Your task to perform on an android device: check the backup settings in the google photos Image 0: 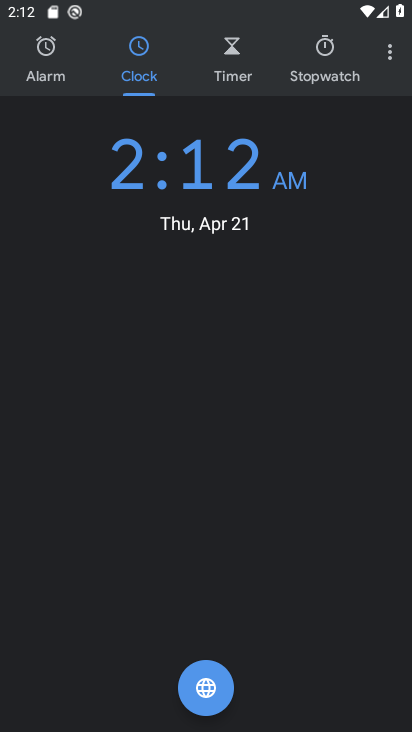
Step 0: press back button
Your task to perform on an android device: check the backup settings in the google photos Image 1: 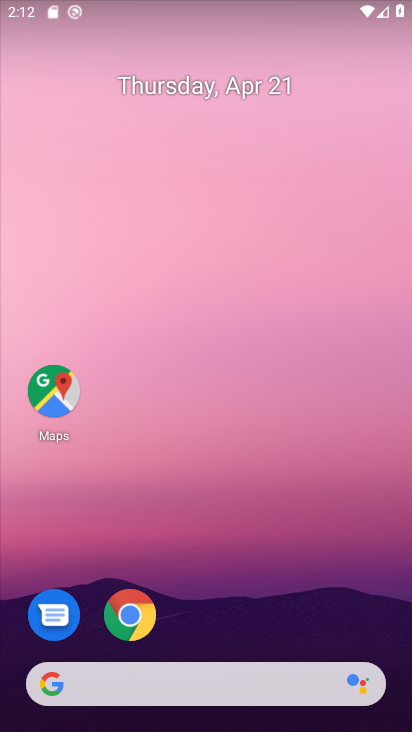
Step 1: drag from (177, 655) to (288, 105)
Your task to perform on an android device: check the backup settings in the google photos Image 2: 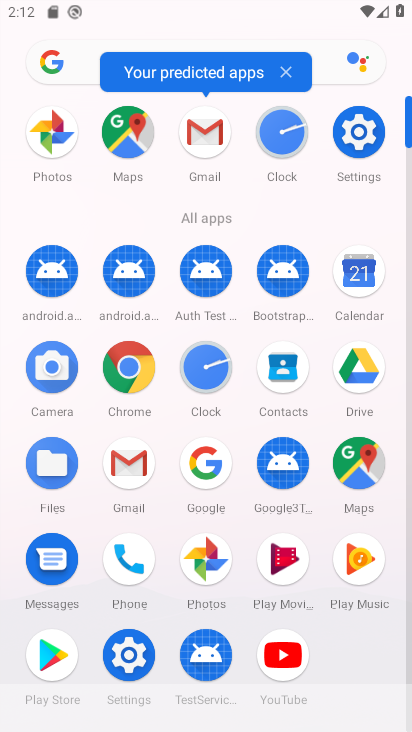
Step 2: click (49, 150)
Your task to perform on an android device: check the backup settings in the google photos Image 3: 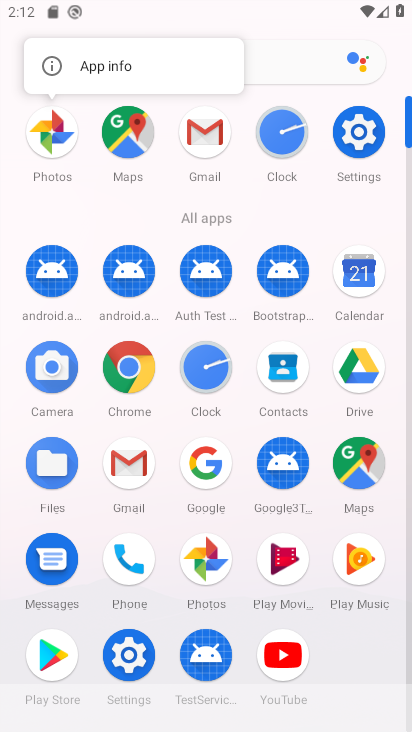
Step 3: click (51, 150)
Your task to perform on an android device: check the backup settings in the google photos Image 4: 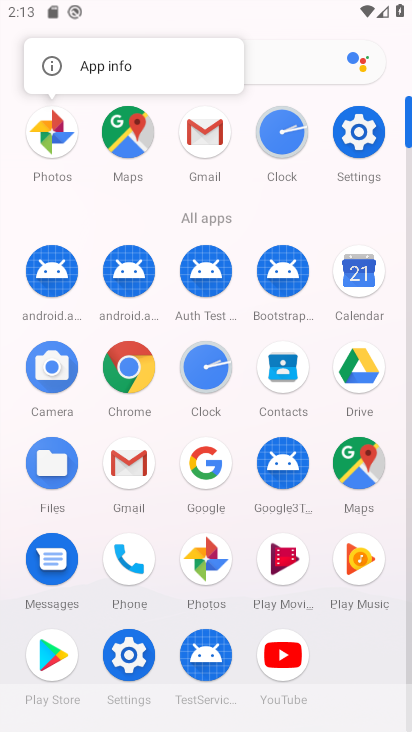
Step 4: click (51, 150)
Your task to perform on an android device: check the backup settings in the google photos Image 5: 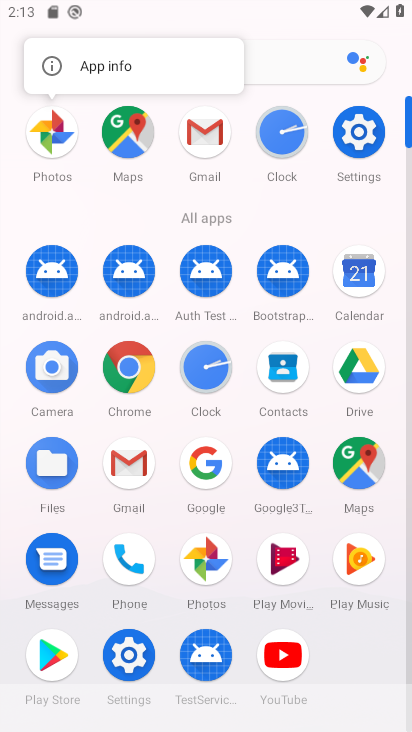
Step 5: click (52, 152)
Your task to perform on an android device: check the backup settings in the google photos Image 6: 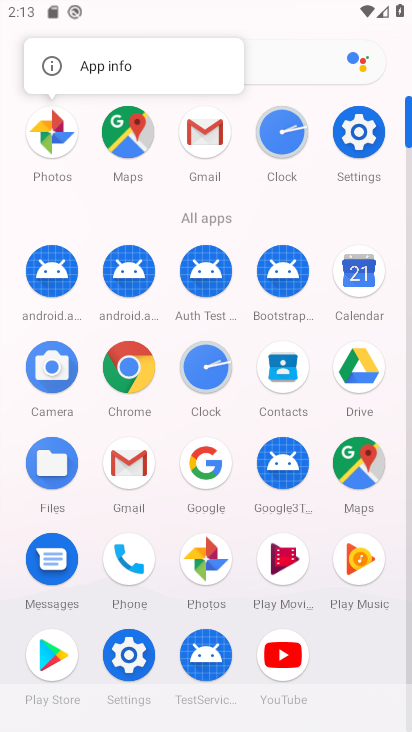
Step 6: click (52, 153)
Your task to perform on an android device: check the backup settings in the google photos Image 7: 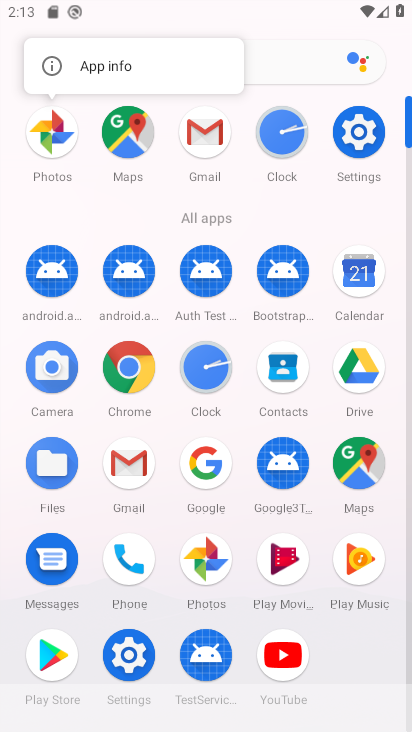
Step 7: click (59, 134)
Your task to perform on an android device: check the backup settings in the google photos Image 8: 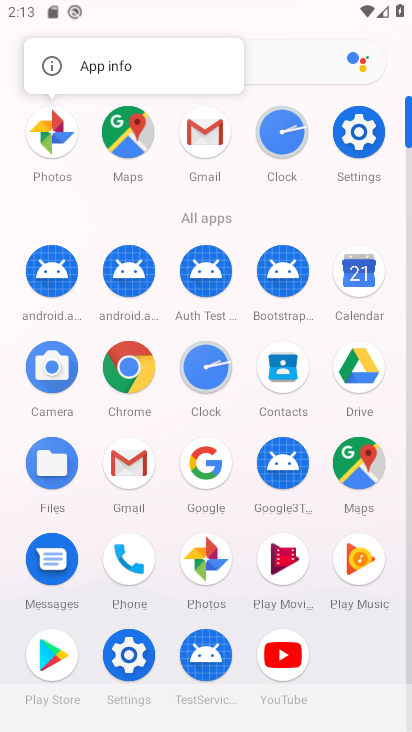
Step 8: click (62, 150)
Your task to perform on an android device: check the backup settings in the google photos Image 9: 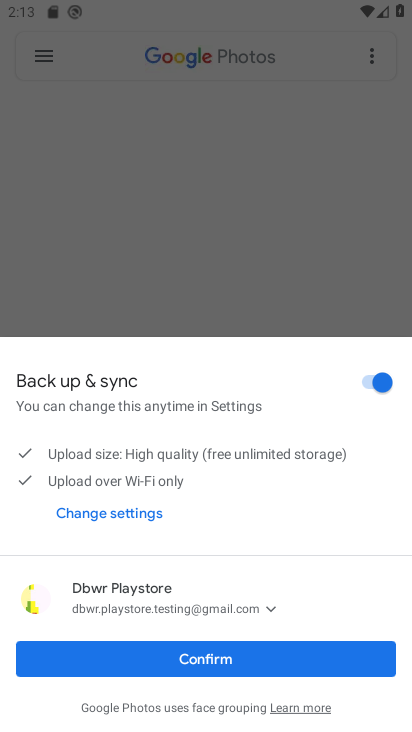
Step 9: click (230, 668)
Your task to perform on an android device: check the backup settings in the google photos Image 10: 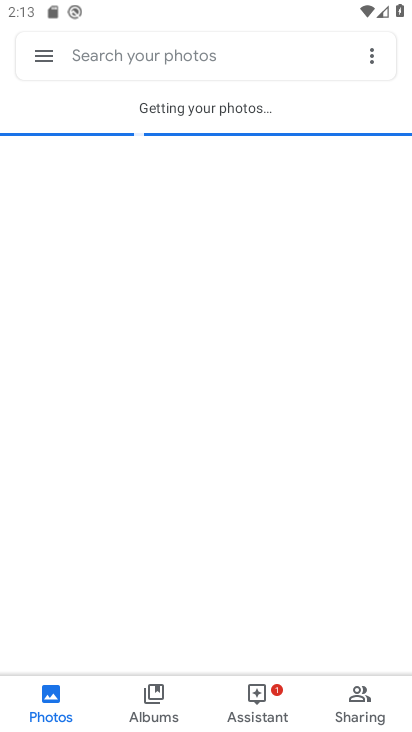
Step 10: click (48, 64)
Your task to perform on an android device: check the backup settings in the google photos Image 11: 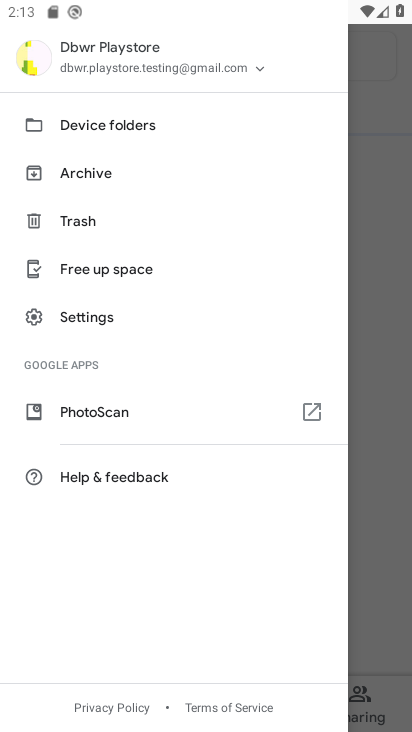
Step 11: click (143, 327)
Your task to perform on an android device: check the backup settings in the google photos Image 12: 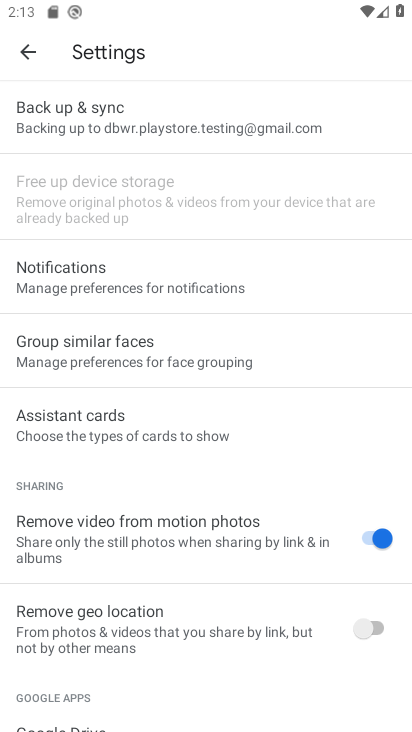
Step 12: click (258, 130)
Your task to perform on an android device: check the backup settings in the google photos Image 13: 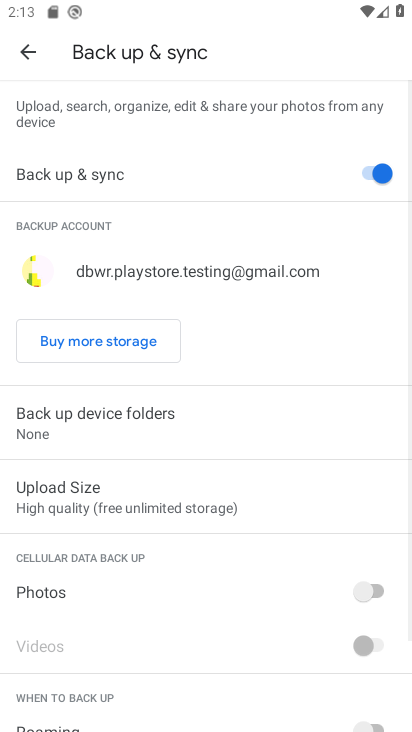
Step 13: task complete